Your task to perform on an android device: Go to wifi settings Image 0: 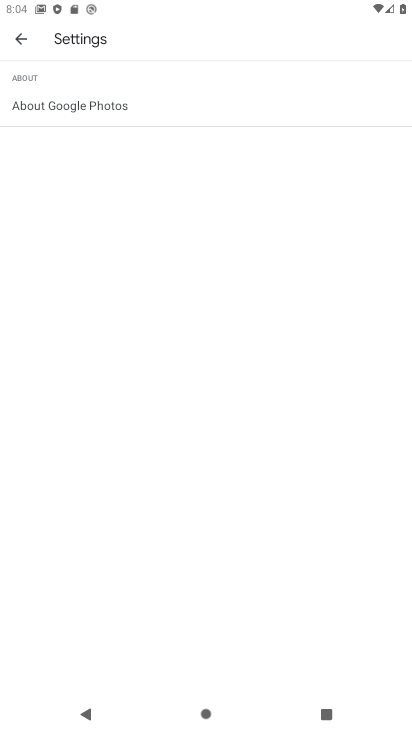
Step 0: press home button
Your task to perform on an android device: Go to wifi settings Image 1: 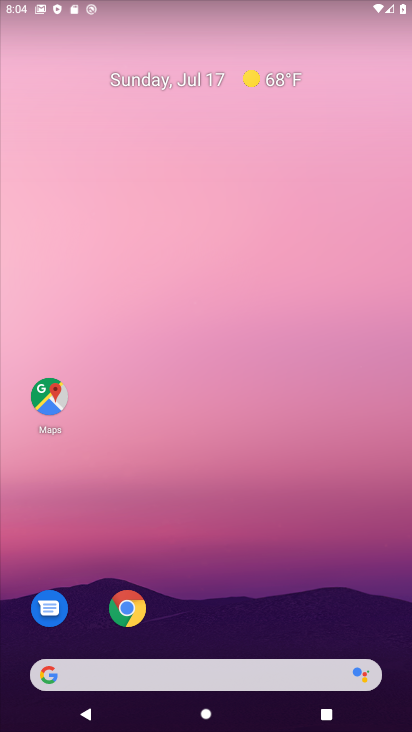
Step 1: drag from (234, 628) to (310, 3)
Your task to perform on an android device: Go to wifi settings Image 2: 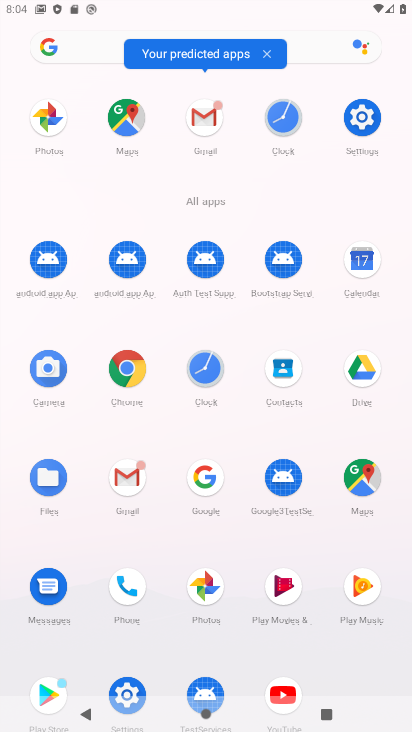
Step 2: click (368, 117)
Your task to perform on an android device: Go to wifi settings Image 3: 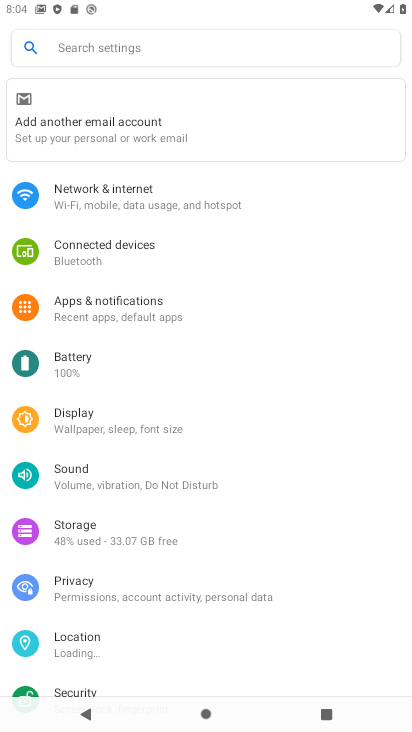
Step 3: click (174, 187)
Your task to perform on an android device: Go to wifi settings Image 4: 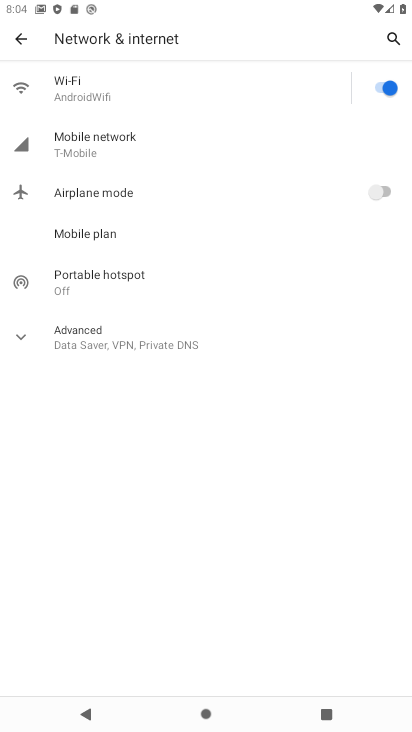
Step 4: click (181, 69)
Your task to perform on an android device: Go to wifi settings Image 5: 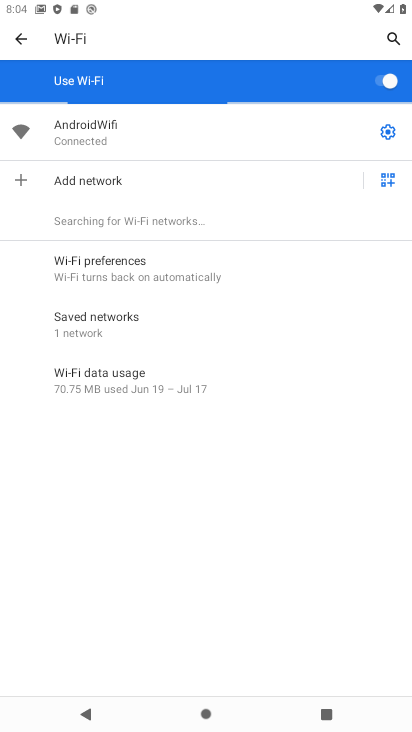
Step 5: task complete